Your task to perform on an android device: Do I have any events today? Image 0: 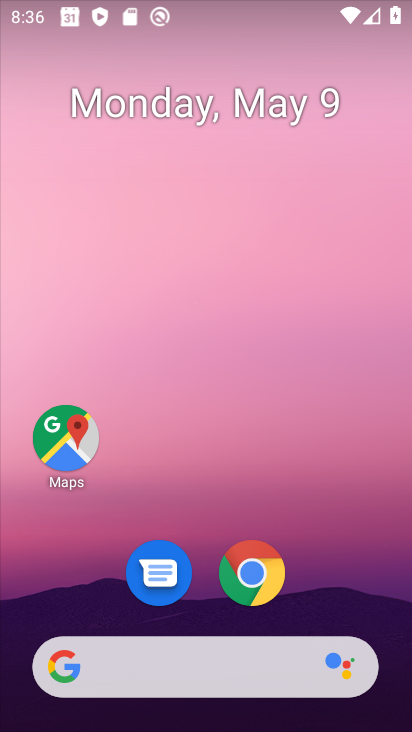
Step 0: drag from (328, 590) to (284, 102)
Your task to perform on an android device: Do I have any events today? Image 1: 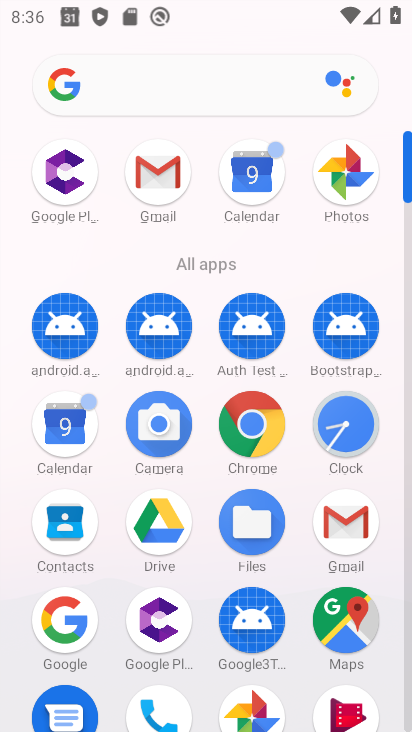
Step 1: click (263, 185)
Your task to perform on an android device: Do I have any events today? Image 2: 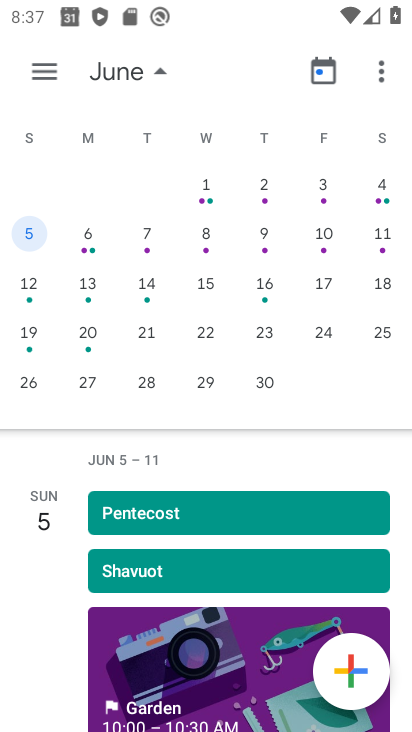
Step 2: drag from (50, 294) to (400, 215)
Your task to perform on an android device: Do I have any events today? Image 3: 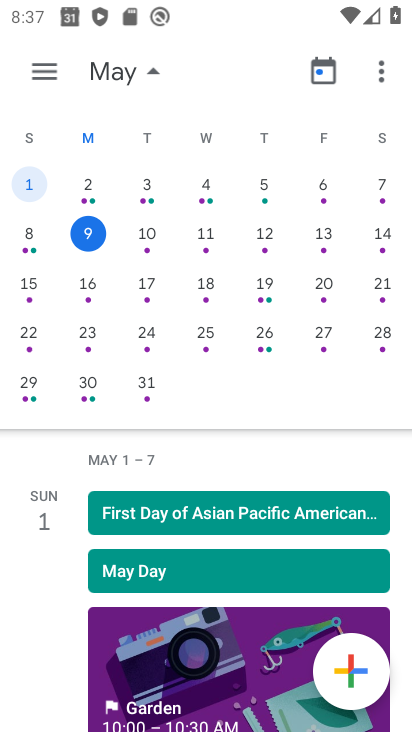
Step 3: click (87, 225)
Your task to perform on an android device: Do I have any events today? Image 4: 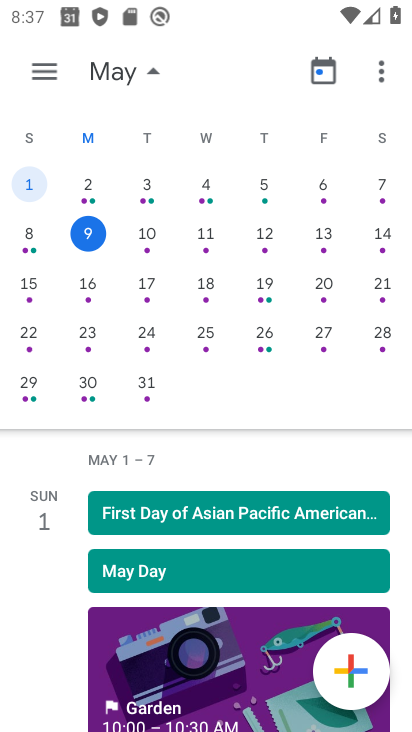
Step 4: click (88, 236)
Your task to perform on an android device: Do I have any events today? Image 5: 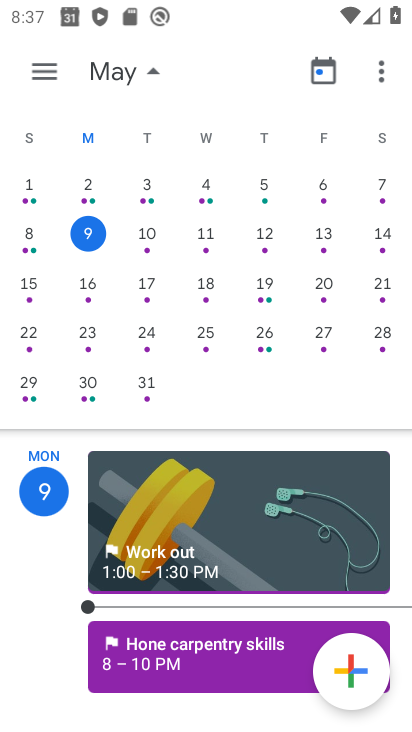
Step 5: task complete